Your task to perform on an android device: Go to Maps Image 0: 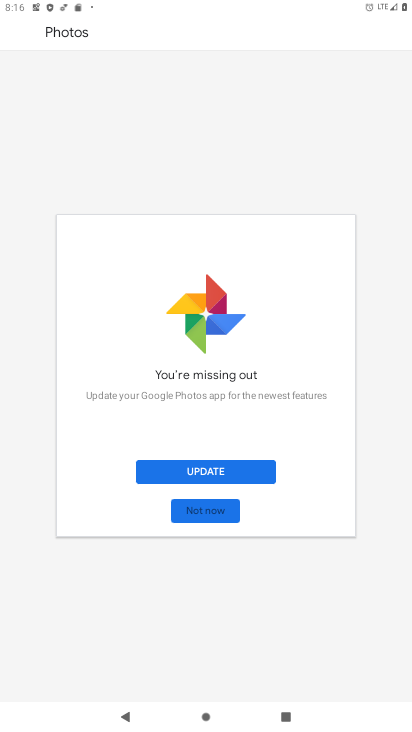
Step 0: press home button
Your task to perform on an android device: Go to Maps Image 1: 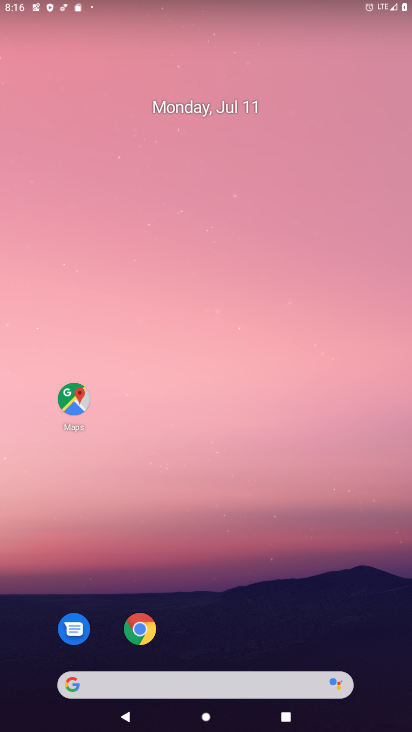
Step 1: click (76, 400)
Your task to perform on an android device: Go to Maps Image 2: 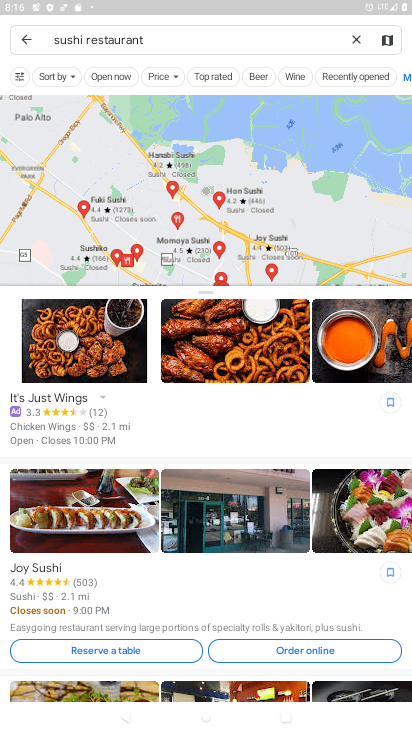
Step 2: task complete